Your task to perform on an android device: open app "DoorDash - Food Delivery" Image 0: 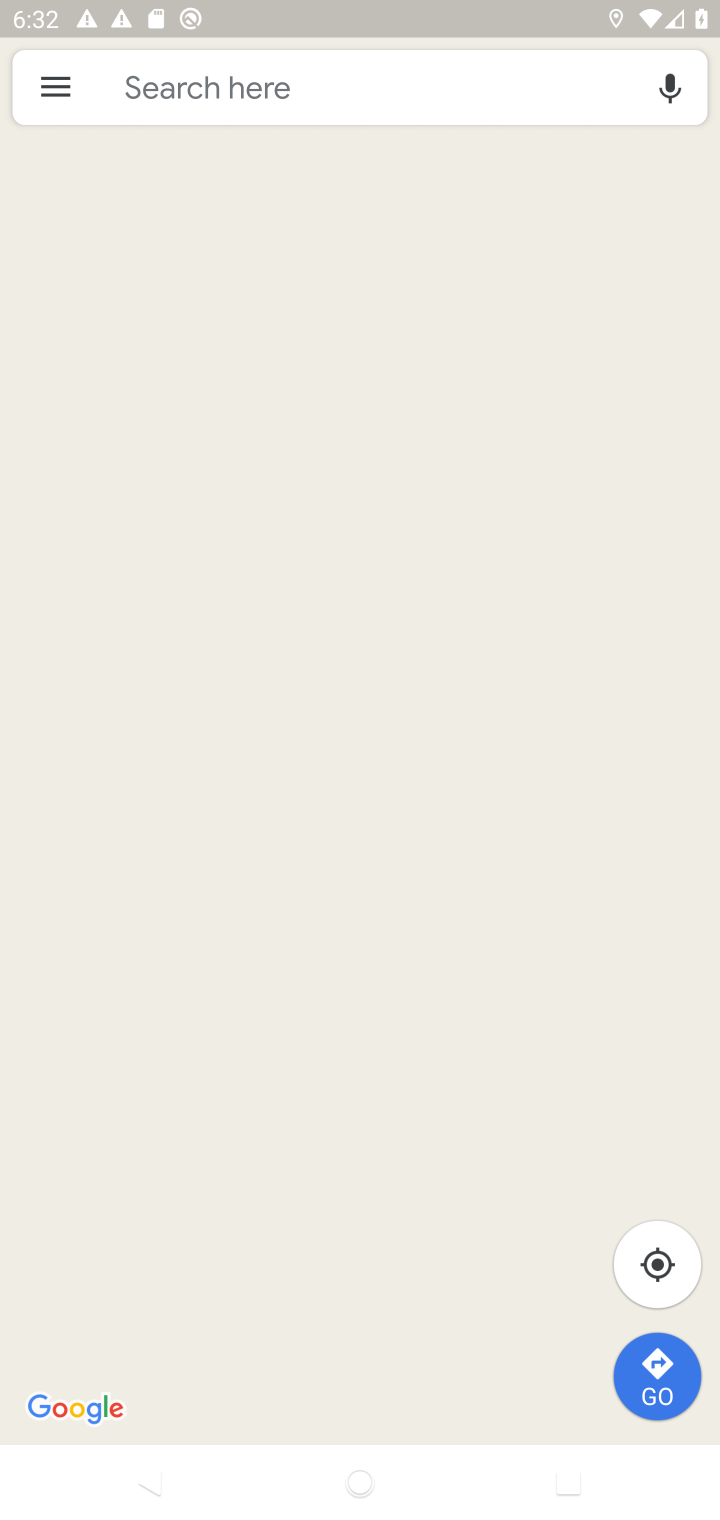
Step 0: press home button
Your task to perform on an android device: open app "DoorDash - Food Delivery" Image 1: 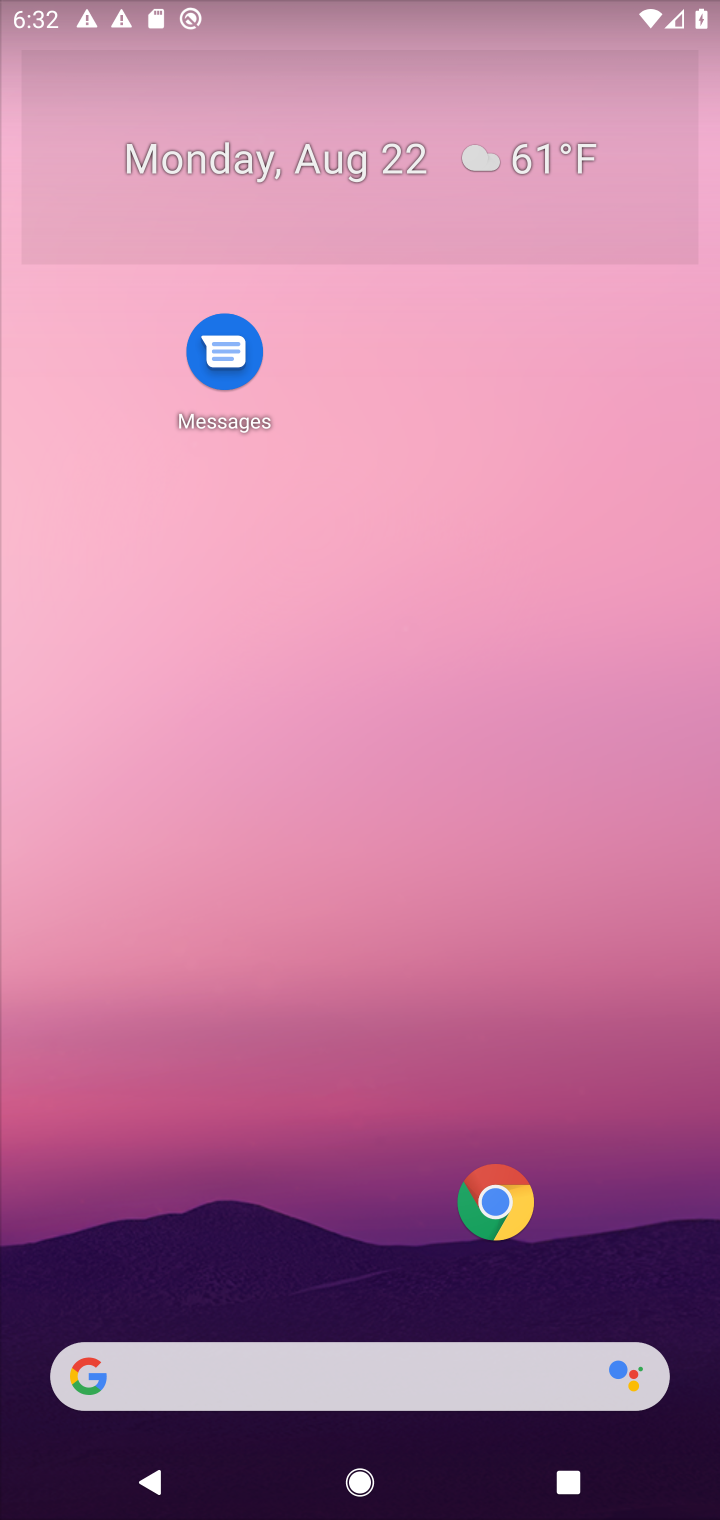
Step 1: drag from (405, 802) to (444, 524)
Your task to perform on an android device: open app "DoorDash - Food Delivery" Image 2: 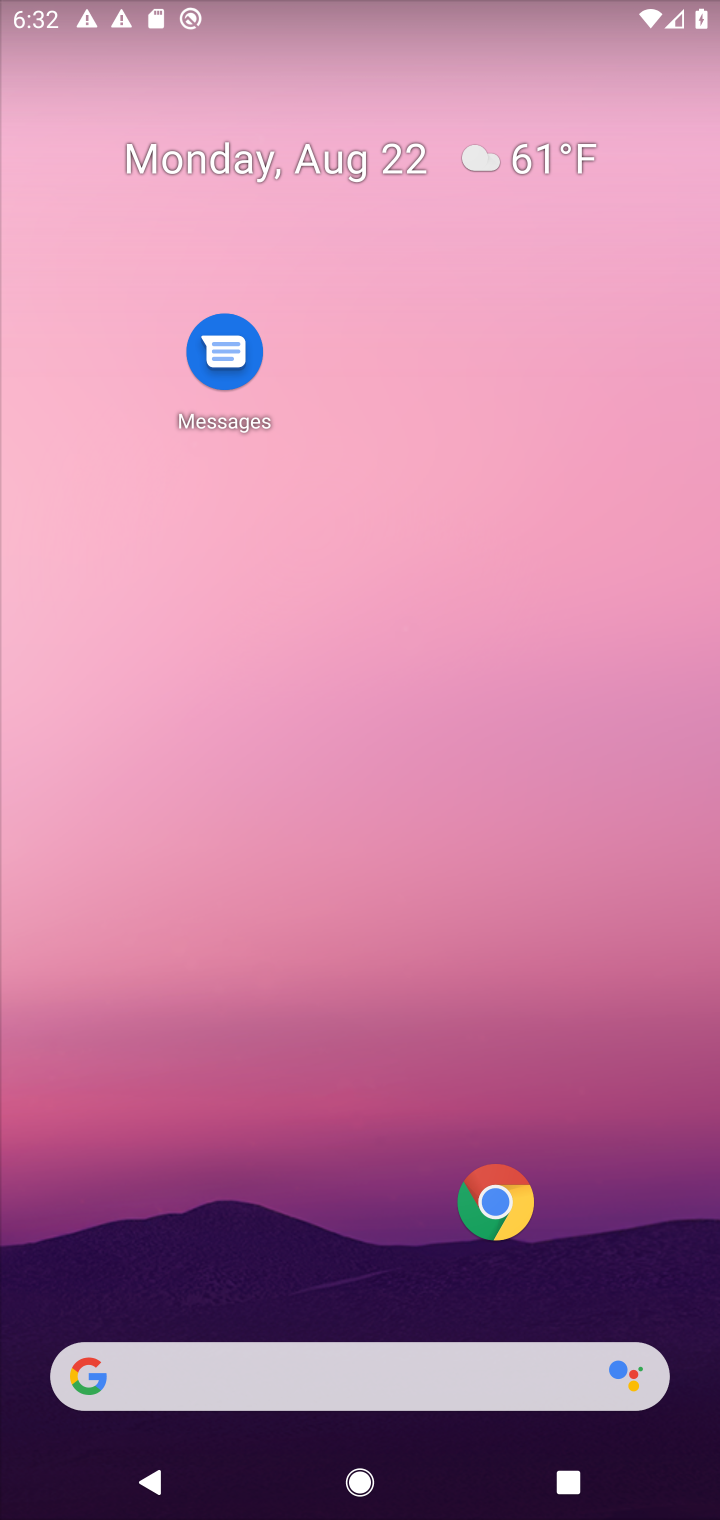
Step 2: drag from (472, 1008) to (590, 130)
Your task to perform on an android device: open app "DoorDash - Food Delivery" Image 3: 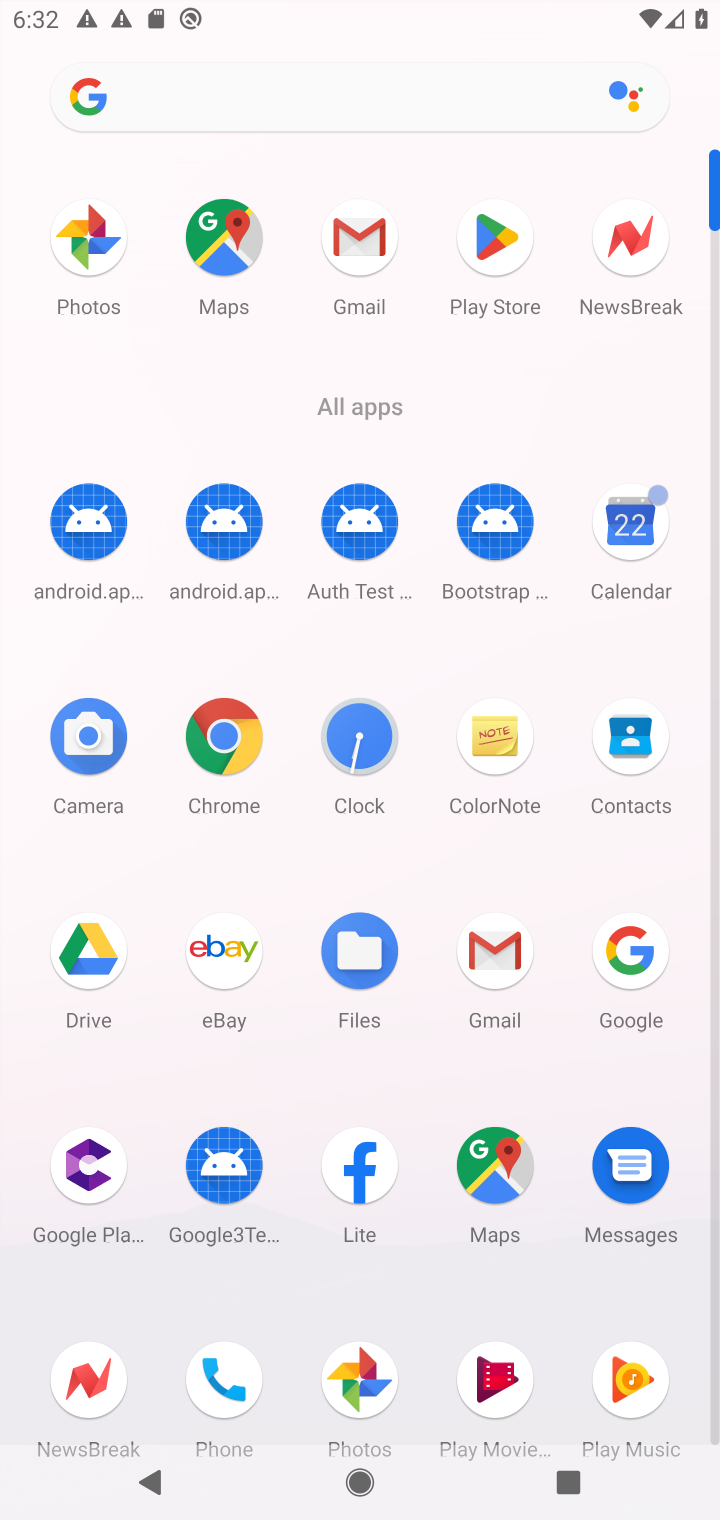
Step 3: click (509, 235)
Your task to perform on an android device: open app "DoorDash - Food Delivery" Image 4: 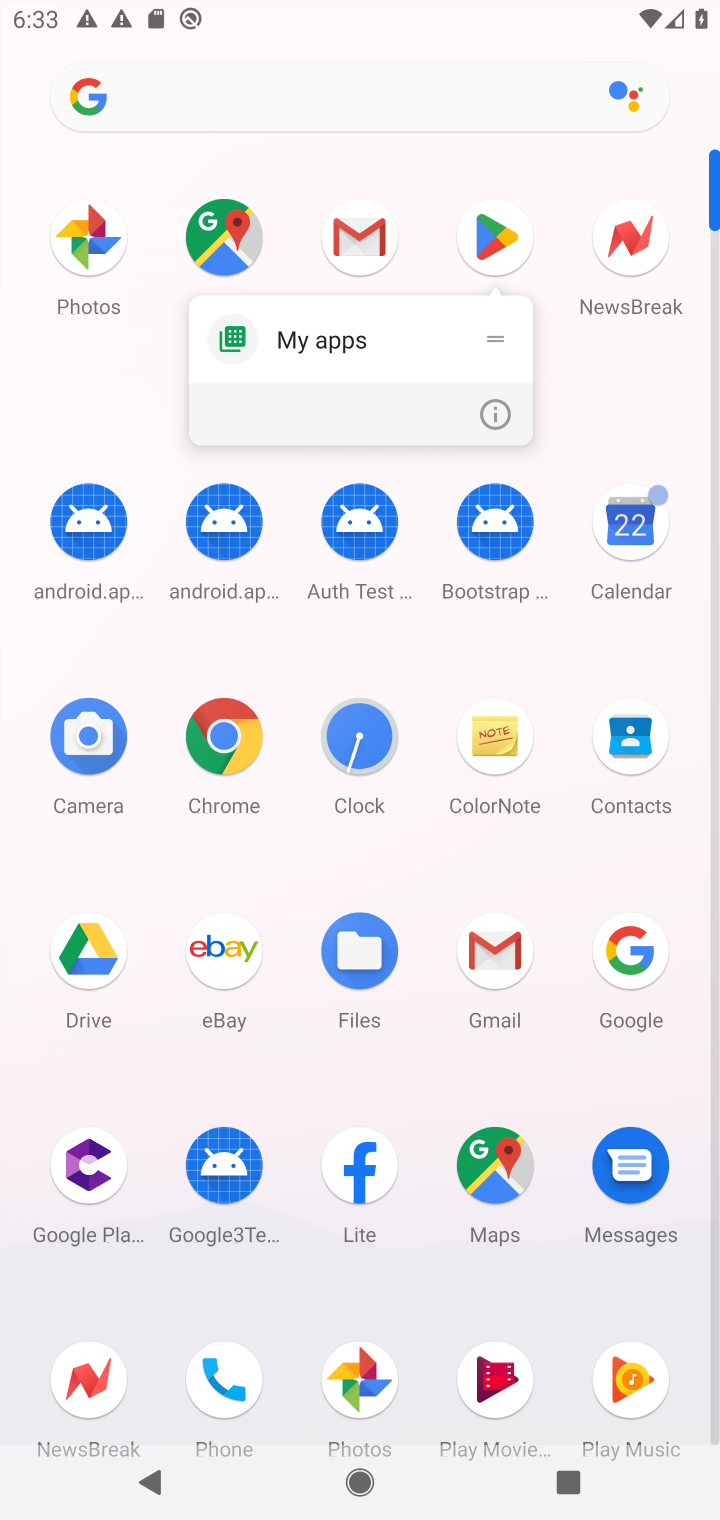
Step 4: click (514, 235)
Your task to perform on an android device: open app "DoorDash - Food Delivery" Image 5: 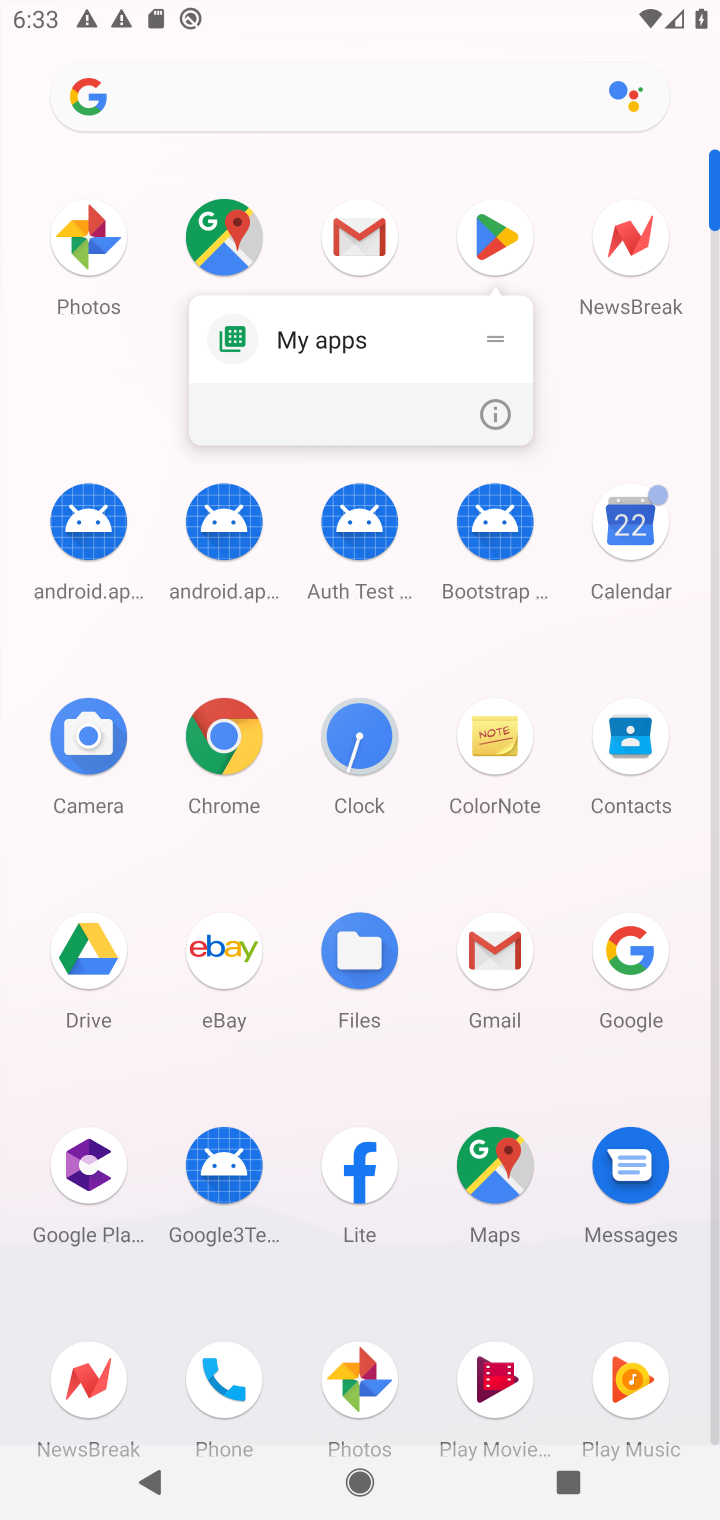
Step 5: click (498, 242)
Your task to perform on an android device: open app "DoorDash - Food Delivery" Image 6: 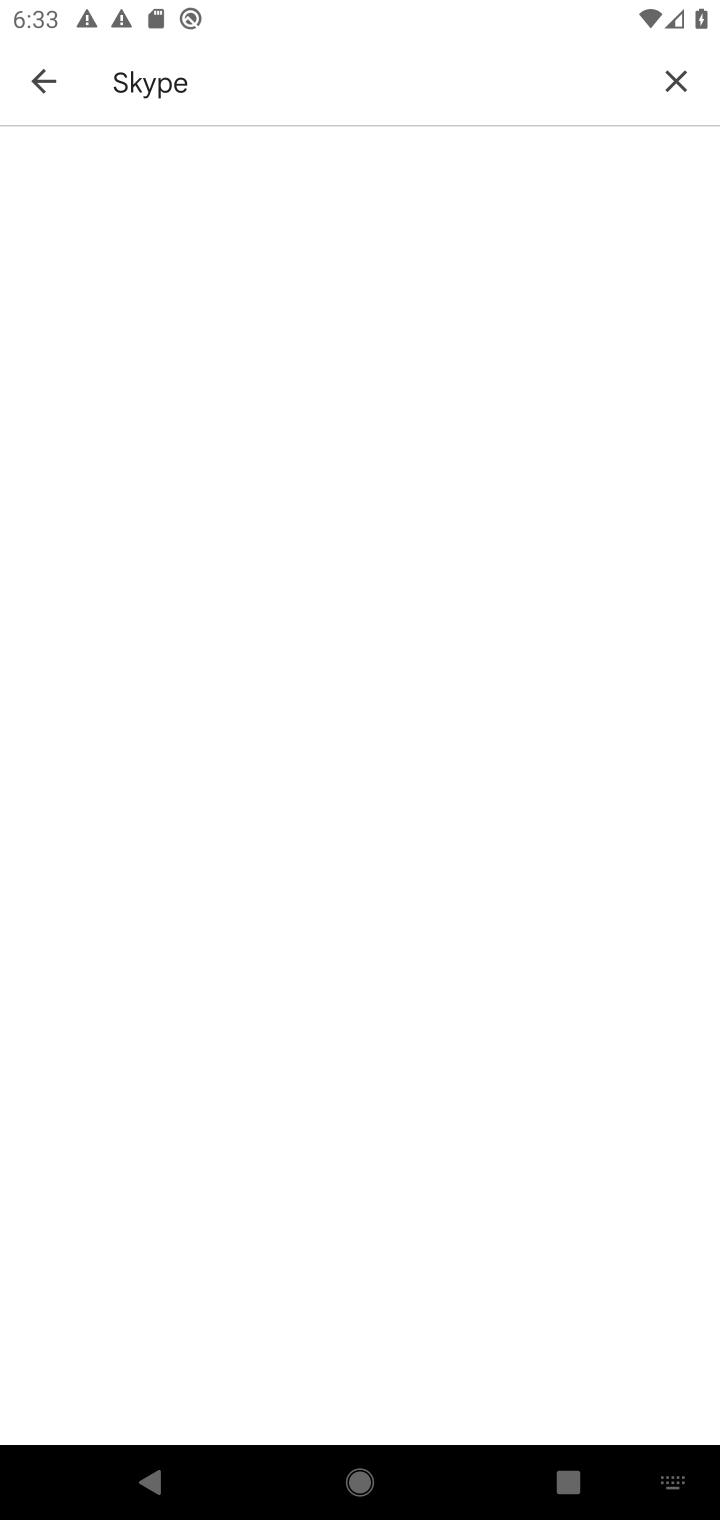
Step 6: click (681, 80)
Your task to perform on an android device: open app "DoorDash - Food Delivery" Image 7: 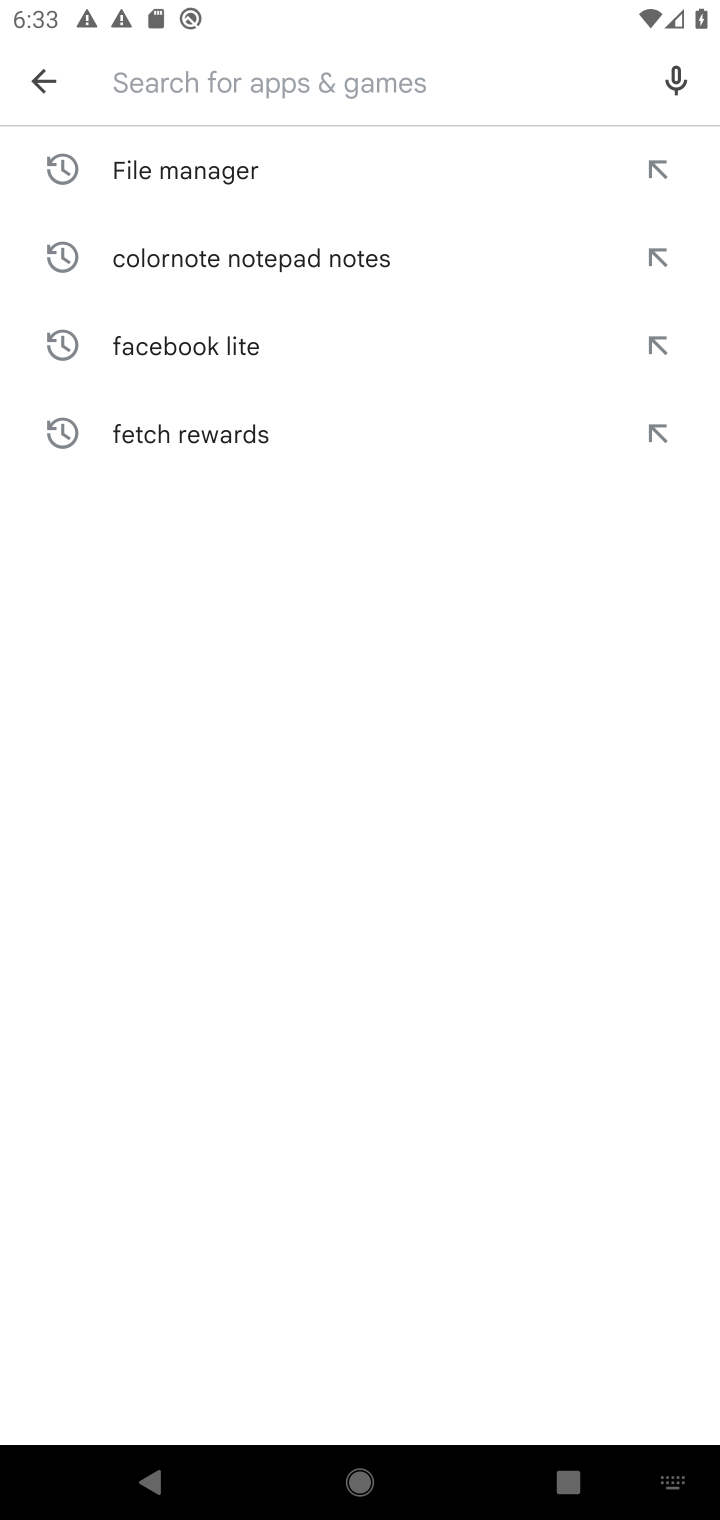
Step 7: type "DoorDash - Food Delivery"
Your task to perform on an android device: open app "DoorDash - Food Delivery" Image 8: 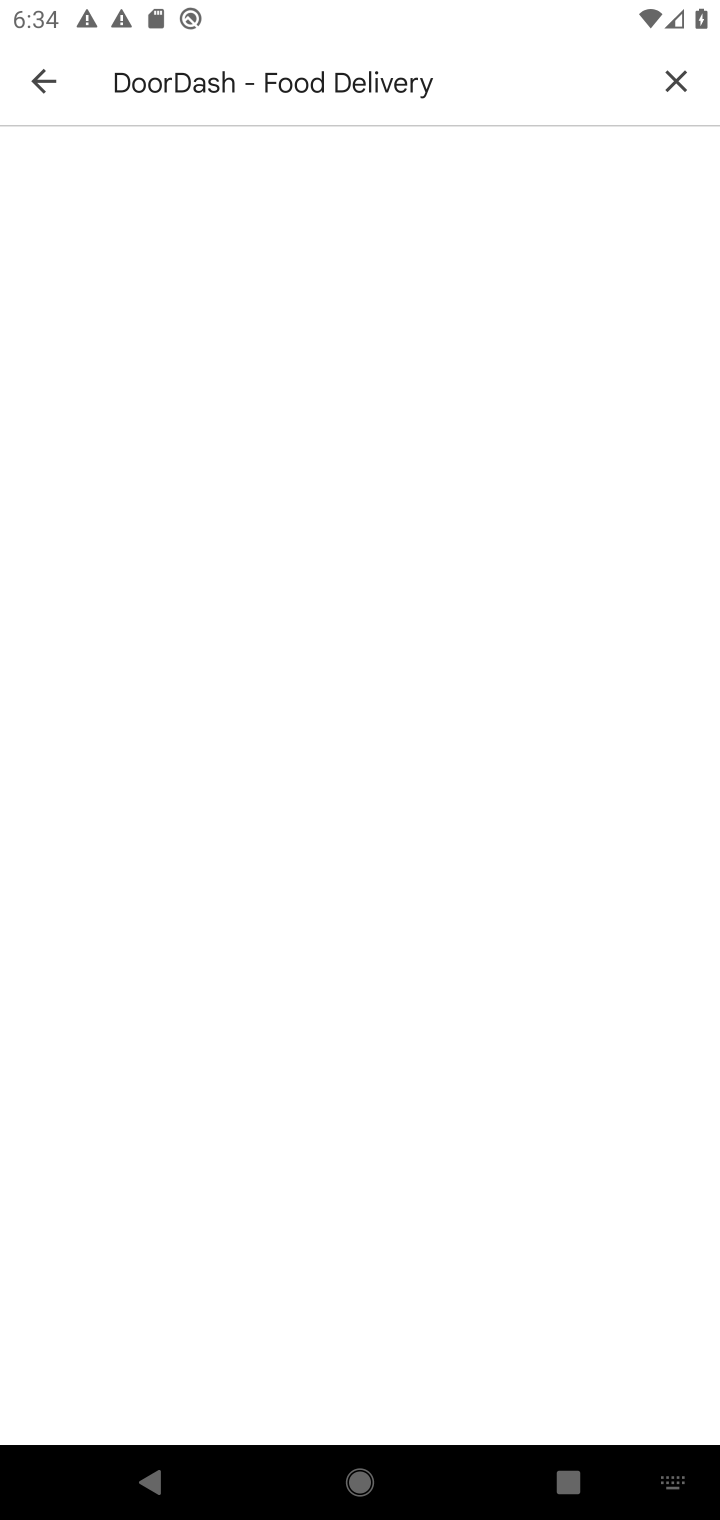
Step 8: task complete